Your task to perform on an android device: turn off notifications settings in the gmail app Image 0: 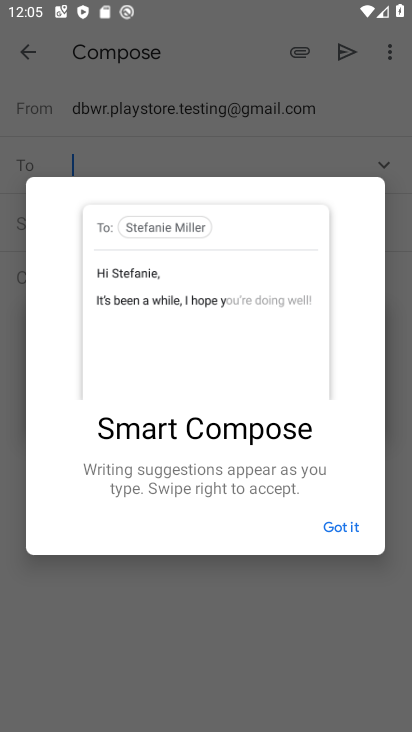
Step 0: press home button
Your task to perform on an android device: turn off notifications settings in the gmail app Image 1: 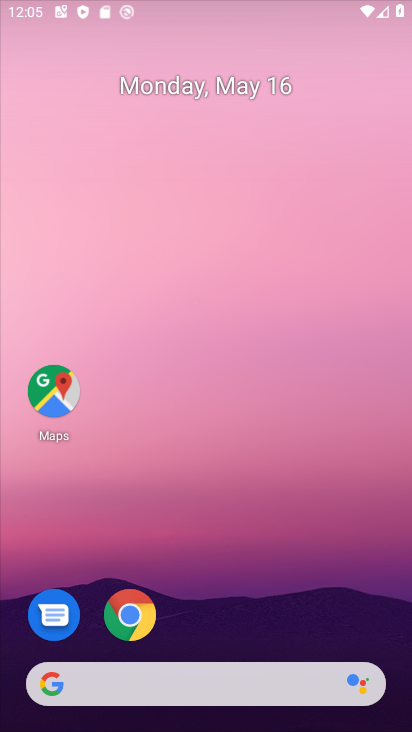
Step 1: drag from (289, 611) to (326, 44)
Your task to perform on an android device: turn off notifications settings in the gmail app Image 2: 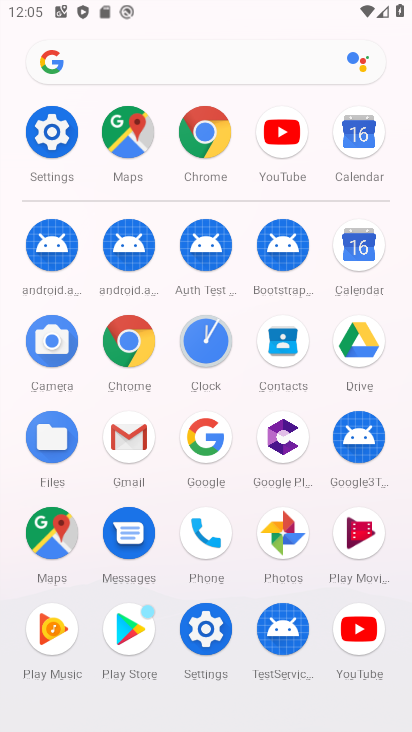
Step 2: click (147, 444)
Your task to perform on an android device: turn off notifications settings in the gmail app Image 3: 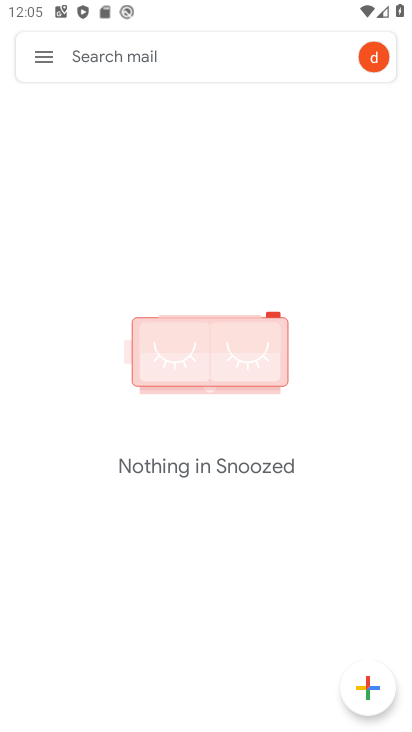
Step 3: click (47, 44)
Your task to perform on an android device: turn off notifications settings in the gmail app Image 4: 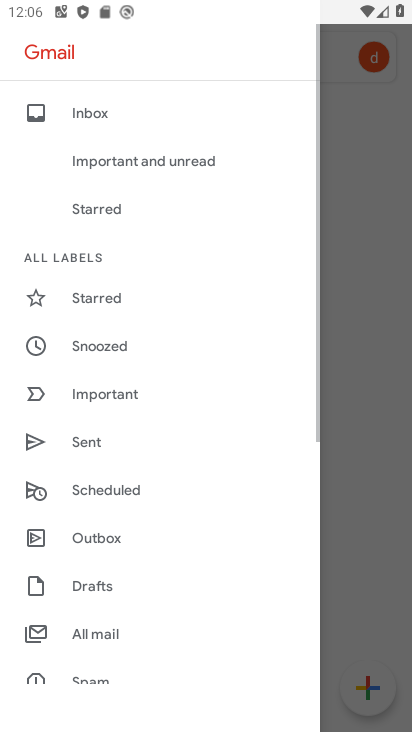
Step 4: drag from (149, 553) to (162, 184)
Your task to perform on an android device: turn off notifications settings in the gmail app Image 5: 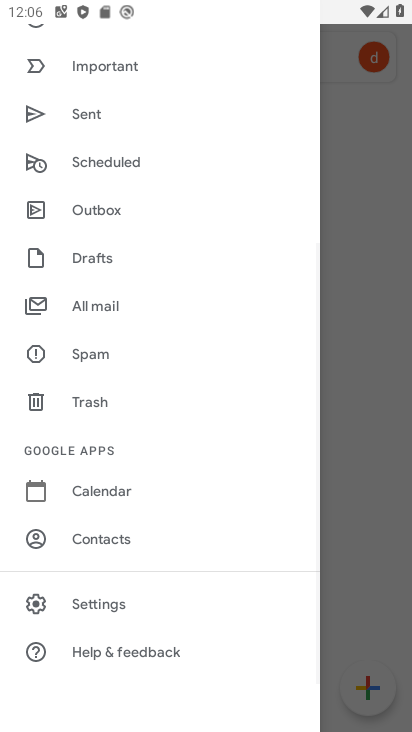
Step 5: click (159, 617)
Your task to perform on an android device: turn off notifications settings in the gmail app Image 6: 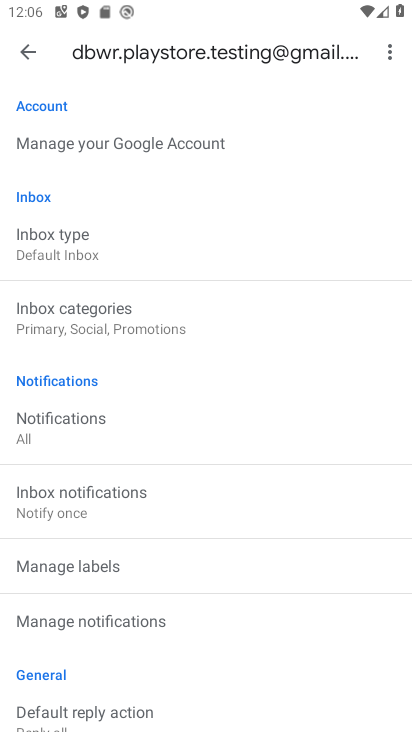
Step 6: drag from (162, 580) to (193, 676)
Your task to perform on an android device: turn off notifications settings in the gmail app Image 7: 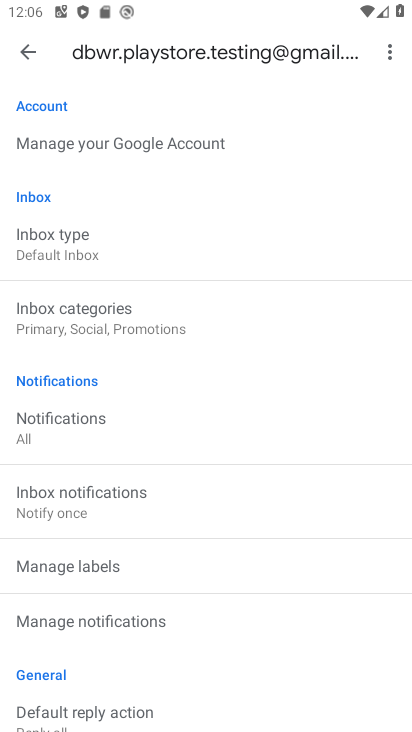
Step 7: click (137, 622)
Your task to perform on an android device: turn off notifications settings in the gmail app Image 8: 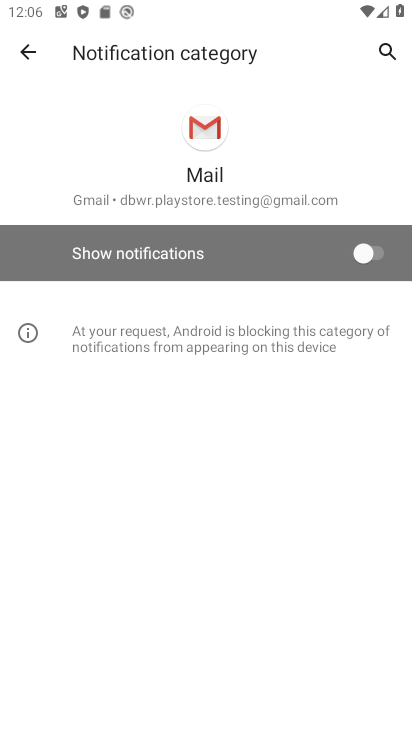
Step 8: task complete